Your task to perform on an android device: show emergency info Image 0: 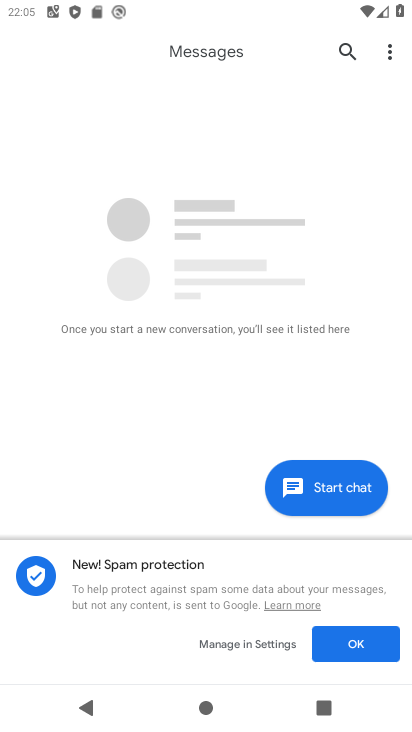
Step 0: press home button
Your task to perform on an android device: show emergency info Image 1: 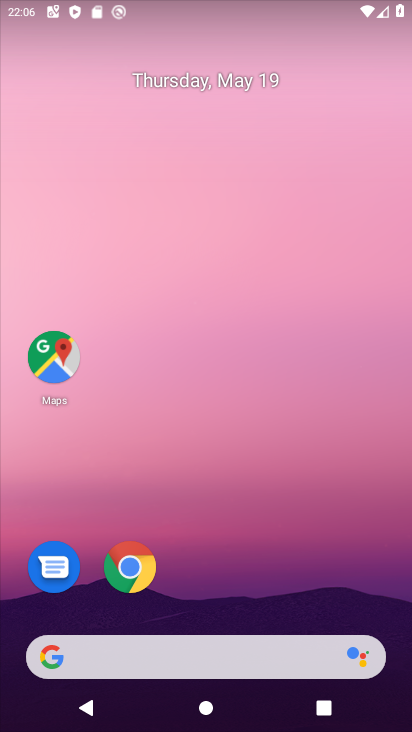
Step 1: drag from (214, 614) to (259, 170)
Your task to perform on an android device: show emergency info Image 2: 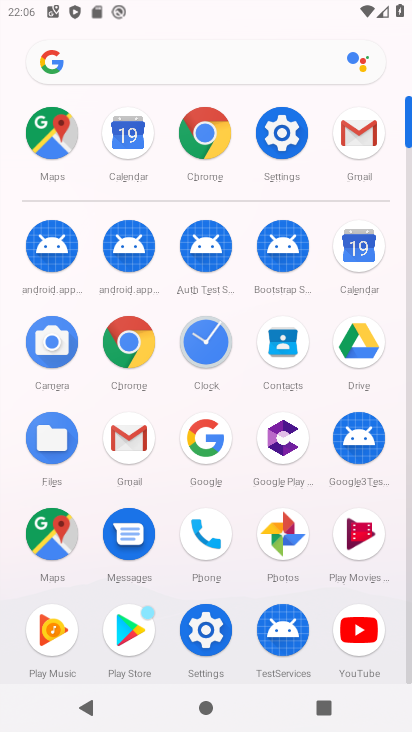
Step 2: click (203, 623)
Your task to perform on an android device: show emergency info Image 3: 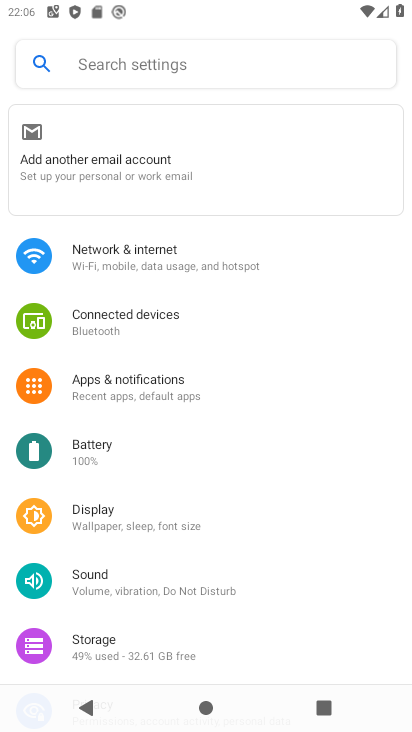
Step 3: drag from (188, 634) to (268, 165)
Your task to perform on an android device: show emergency info Image 4: 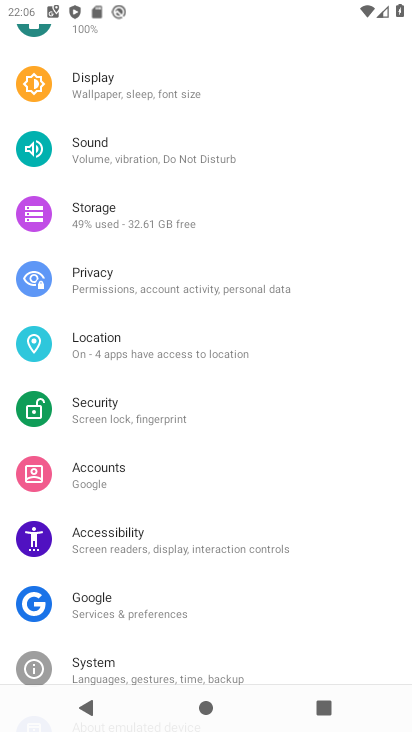
Step 4: drag from (176, 628) to (197, 121)
Your task to perform on an android device: show emergency info Image 5: 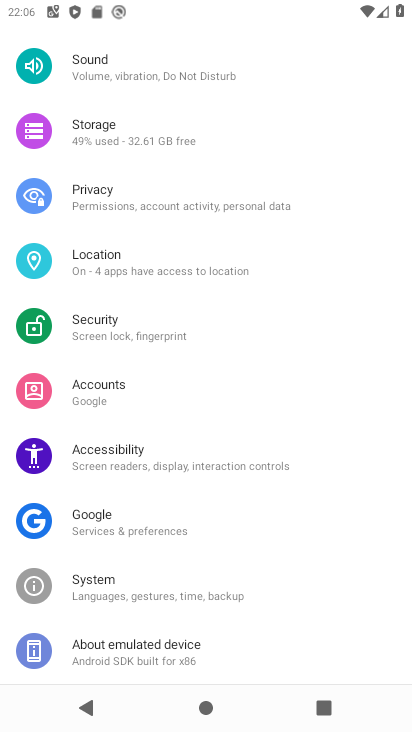
Step 5: click (224, 653)
Your task to perform on an android device: show emergency info Image 6: 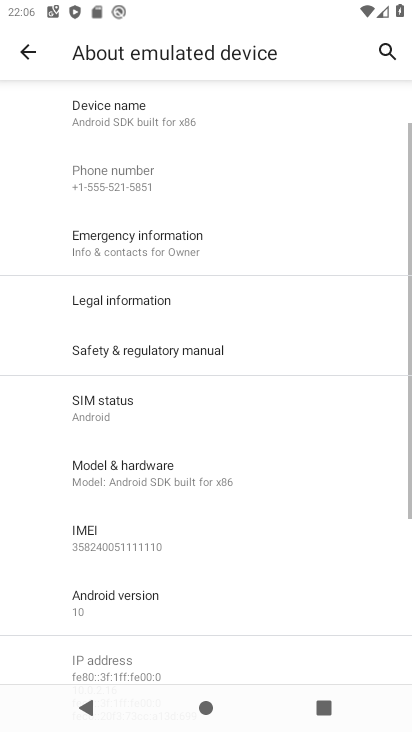
Step 6: click (156, 239)
Your task to perform on an android device: show emergency info Image 7: 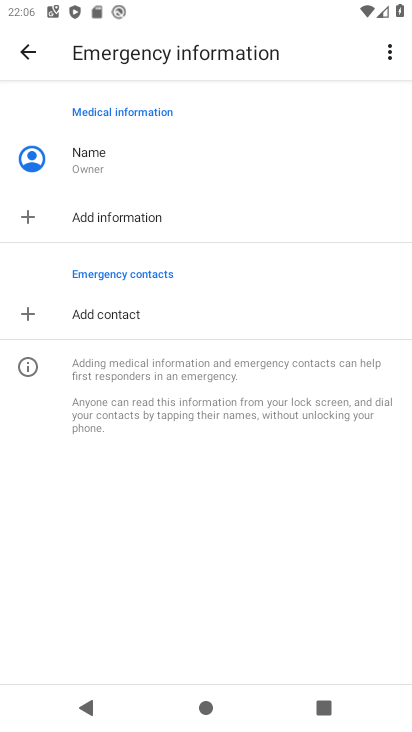
Step 7: task complete